Your task to perform on an android device: View the shopping cart on newegg.com. Add duracell triple a to the cart on newegg.com Image 0: 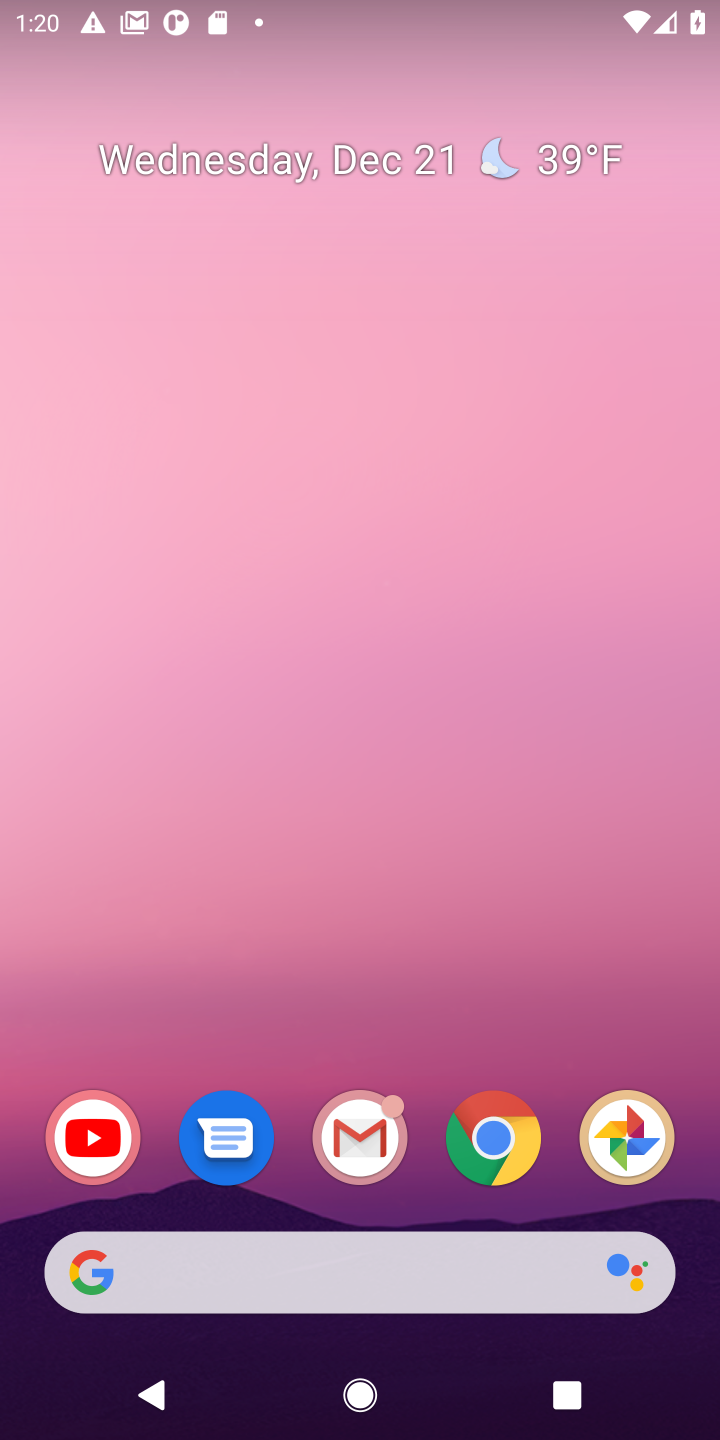
Step 0: click (496, 1109)
Your task to perform on an android device: View the shopping cart on newegg.com. Add duracell triple a to the cart on newegg.com Image 1: 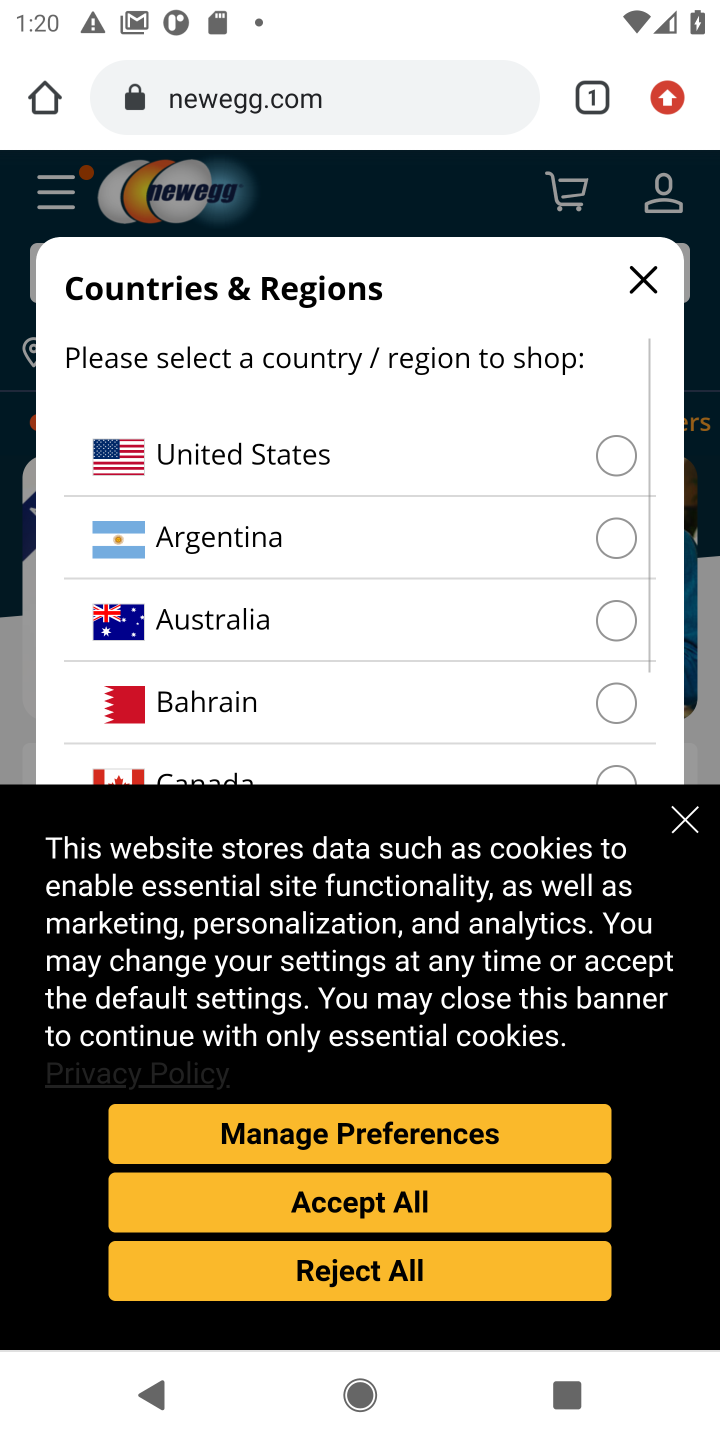
Step 1: click (453, 1215)
Your task to perform on an android device: View the shopping cart on newegg.com. Add duracell triple a to the cart on newegg.com Image 2: 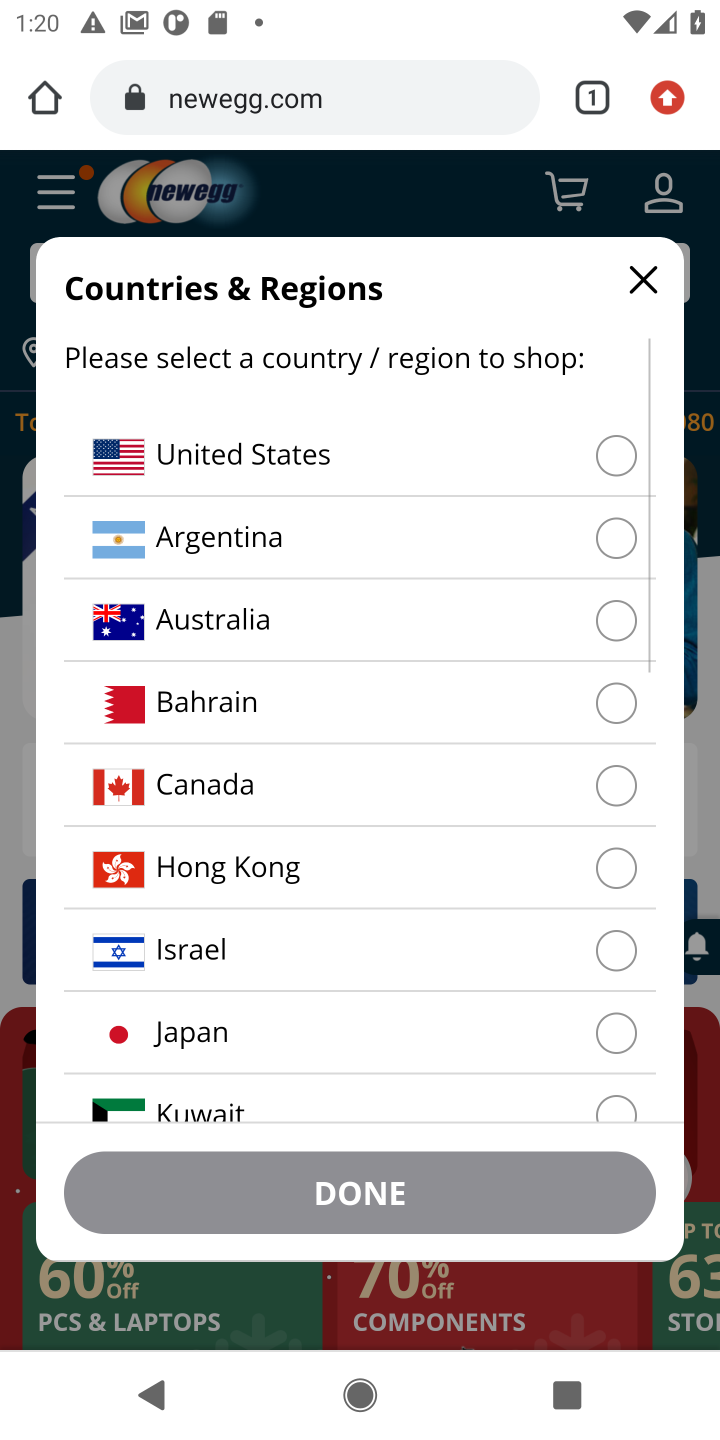
Step 2: click (454, 446)
Your task to perform on an android device: View the shopping cart on newegg.com. Add duracell triple a to the cart on newegg.com Image 3: 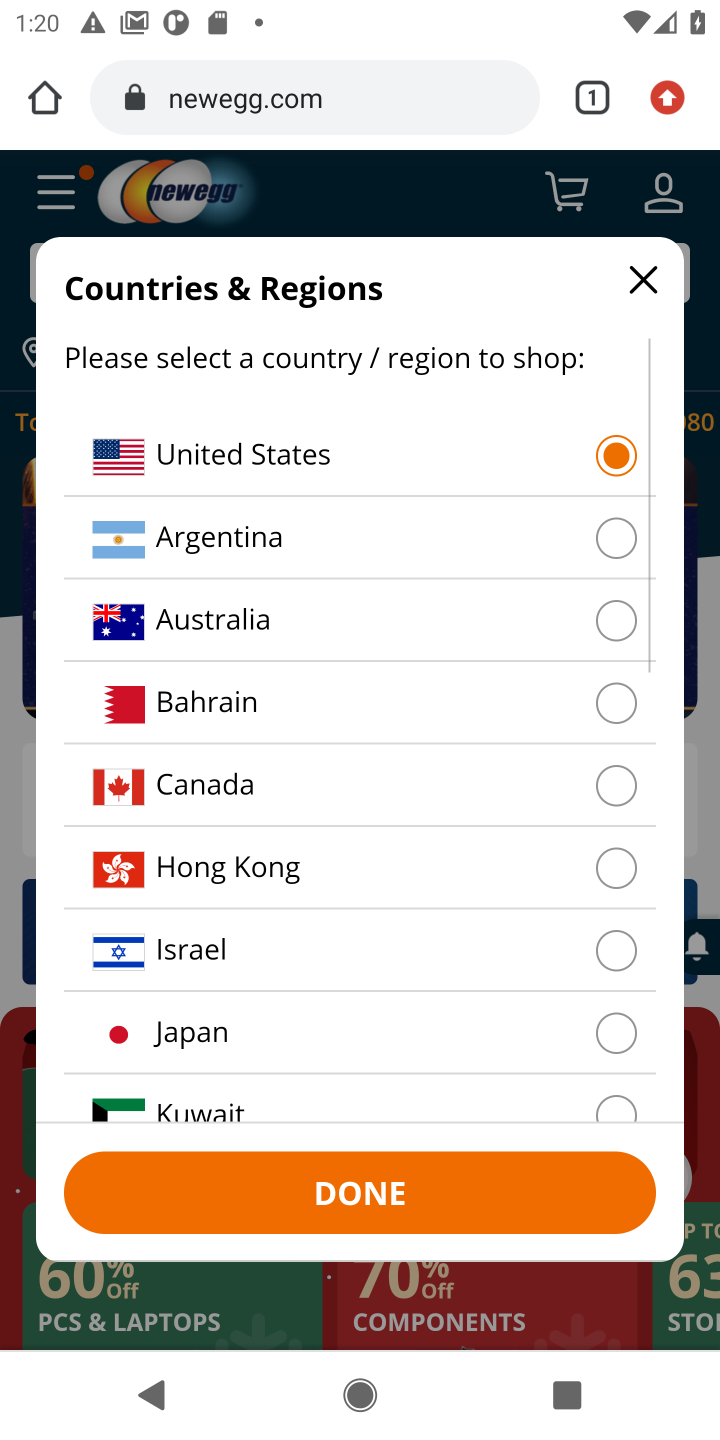
Step 3: click (317, 1210)
Your task to perform on an android device: View the shopping cart on newegg.com. Add duracell triple a to the cart on newegg.com Image 4: 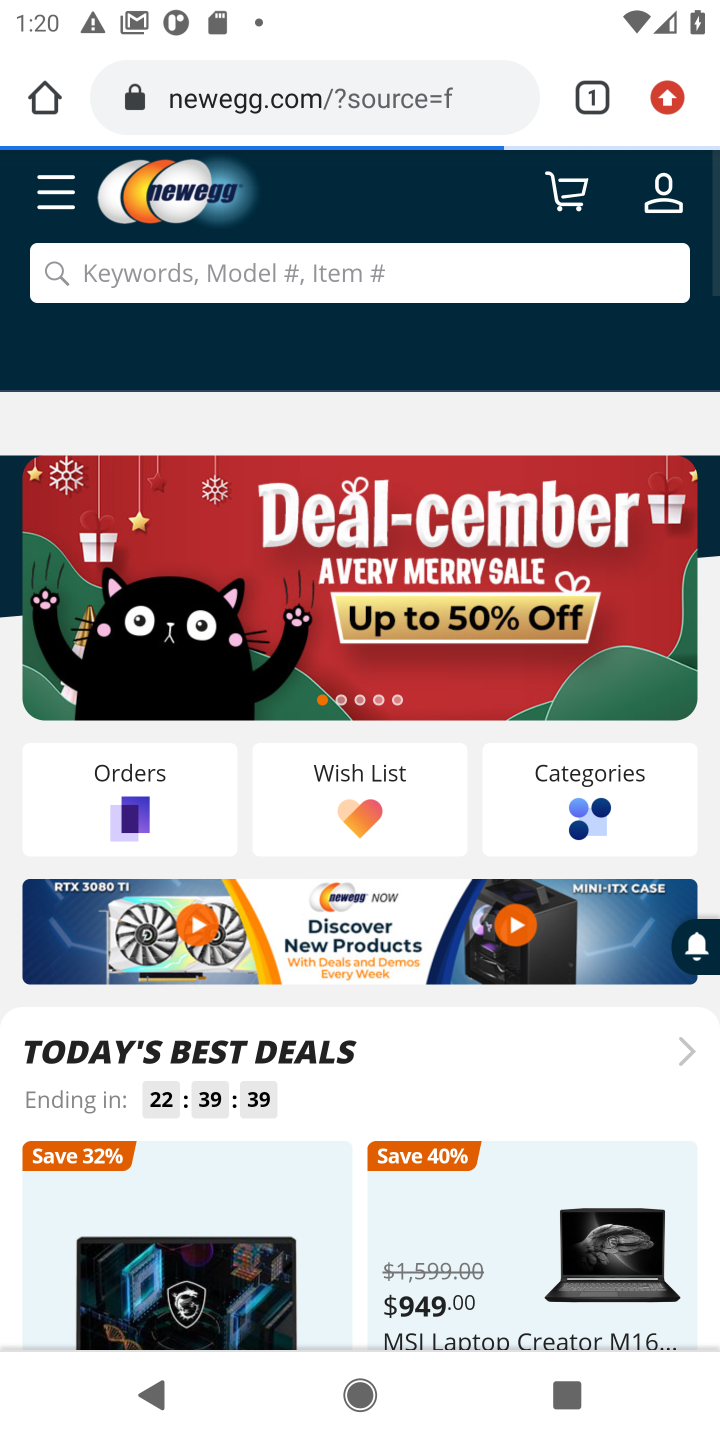
Step 4: task complete